Your task to perform on an android device: change the clock display to digital Image 0: 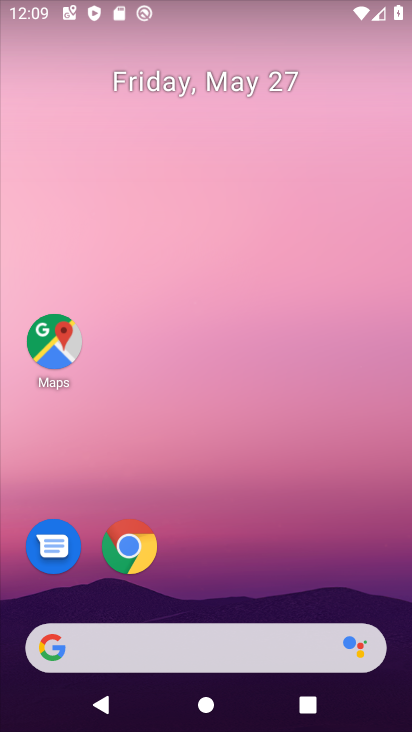
Step 0: drag from (280, 545) to (209, 111)
Your task to perform on an android device: change the clock display to digital Image 1: 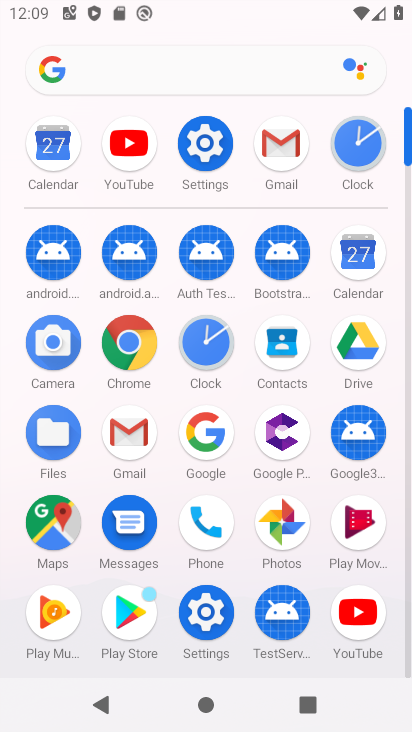
Step 1: click (344, 152)
Your task to perform on an android device: change the clock display to digital Image 2: 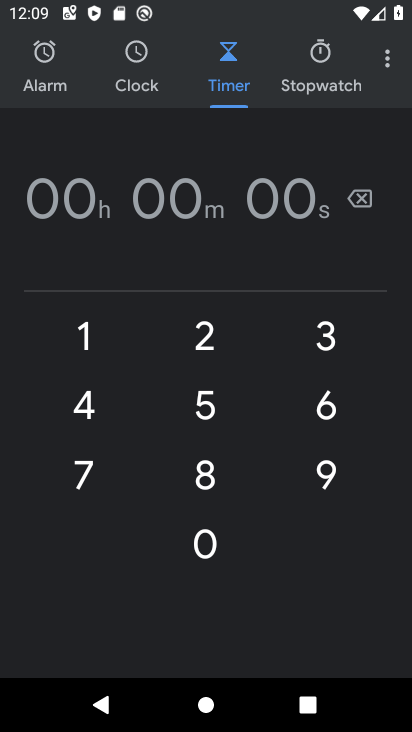
Step 2: click (383, 56)
Your task to perform on an android device: change the clock display to digital Image 3: 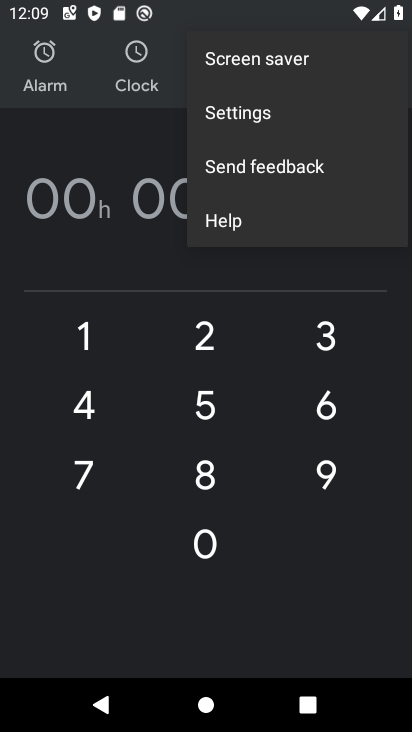
Step 3: click (231, 113)
Your task to perform on an android device: change the clock display to digital Image 4: 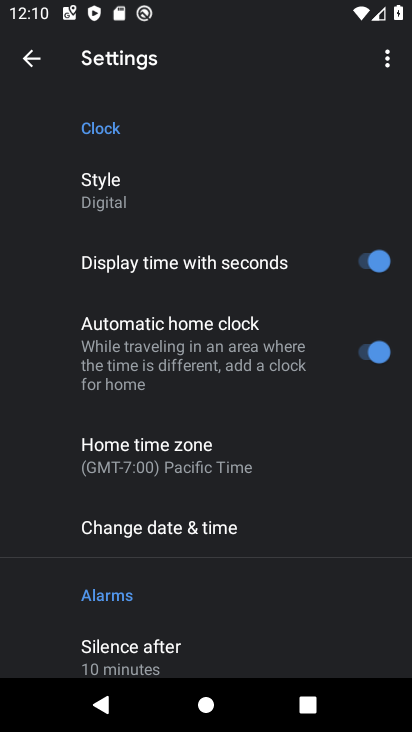
Step 4: task complete